Your task to perform on an android device: see sites visited before in the chrome app Image 0: 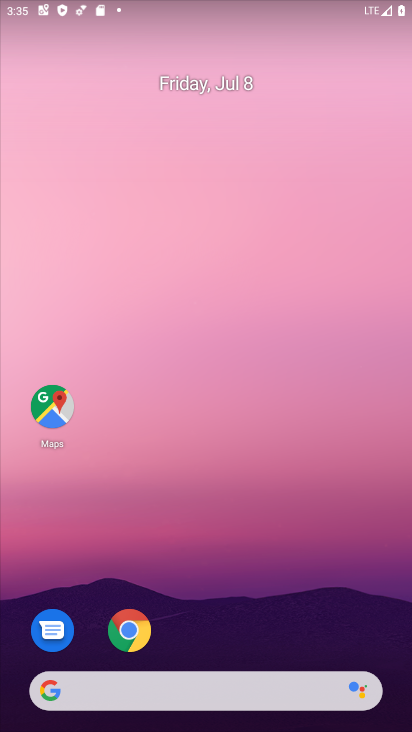
Step 0: click (128, 629)
Your task to perform on an android device: see sites visited before in the chrome app Image 1: 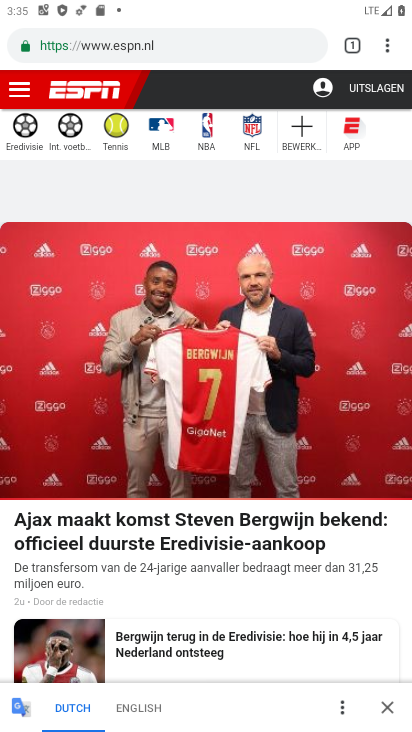
Step 1: click (387, 45)
Your task to perform on an android device: see sites visited before in the chrome app Image 2: 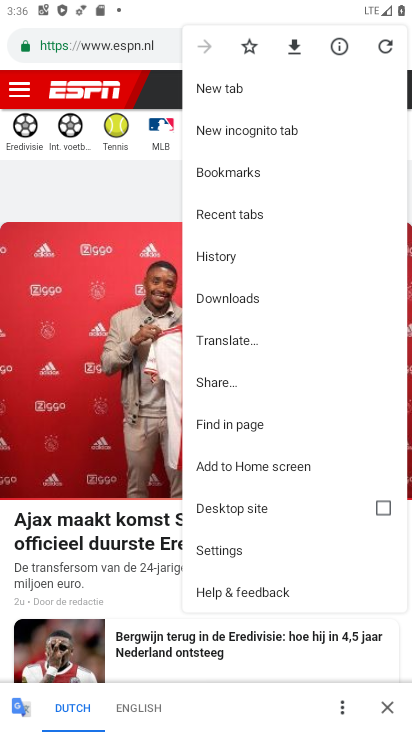
Step 2: click (231, 257)
Your task to perform on an android device: see sites visited before in the chrome app Image 3: 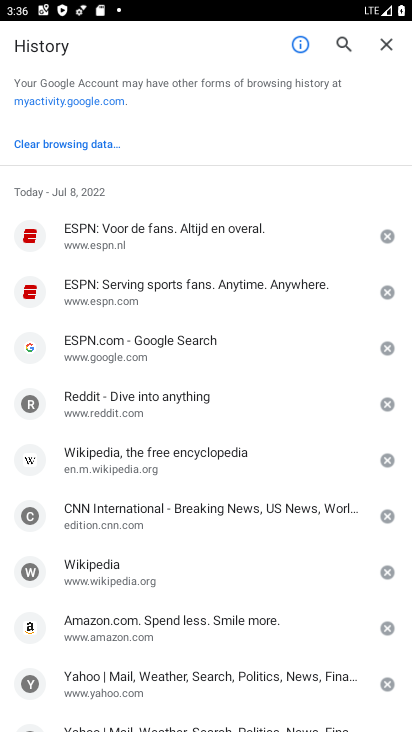
Step 3: task complete